Your task to perform on an android device: set the stopwatch Image 0: 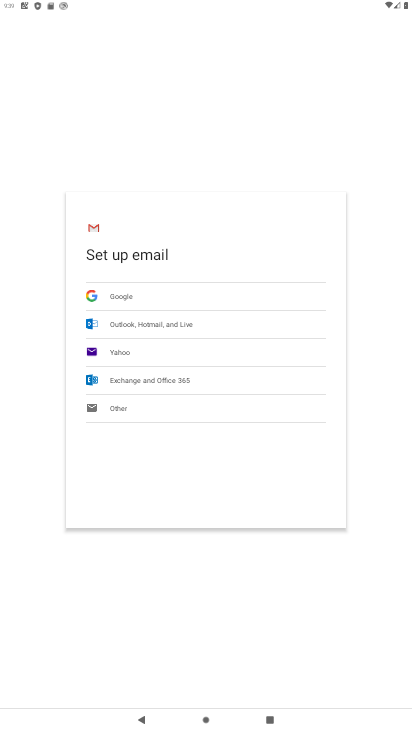
Step 0: press home button
Your task to perform on an android device: set the stopwatch Image 1: 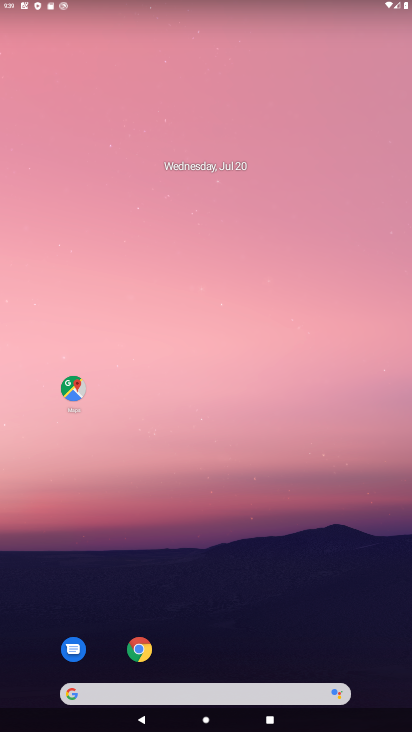
Step 1: drag from (286, 640) to (286, 145)
Your task to perform on an android device: set the stopwatch Image 2: 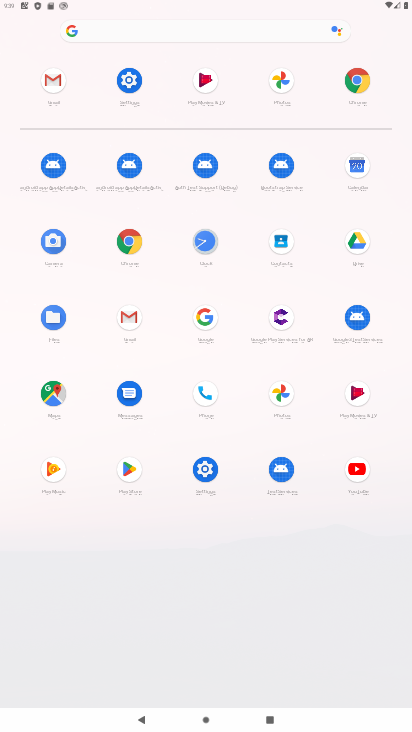
Step 2: click (121, 77)
Your task to perform on an android device: set the stopwatch Image 3: 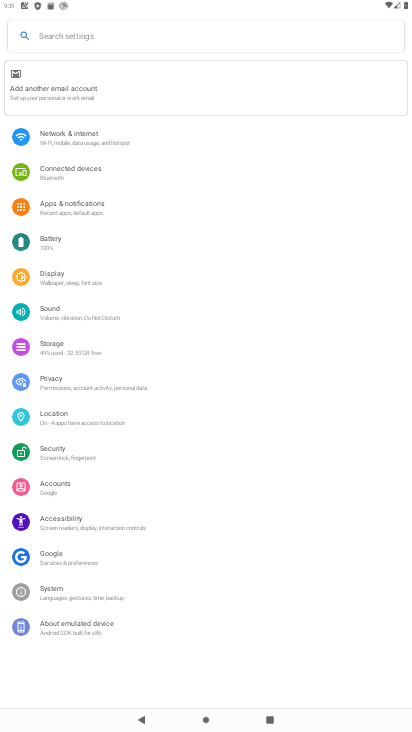
Step 3: task complete